Your task to perform on an android device: allow cookies in the chrome app Image 0: 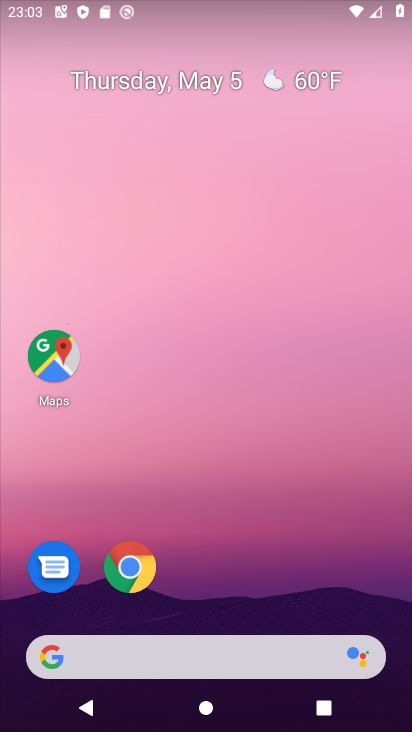
Step 0: click (133, 572)
Your task to perform on an android device: allow cookies in the chrome app Image 1: 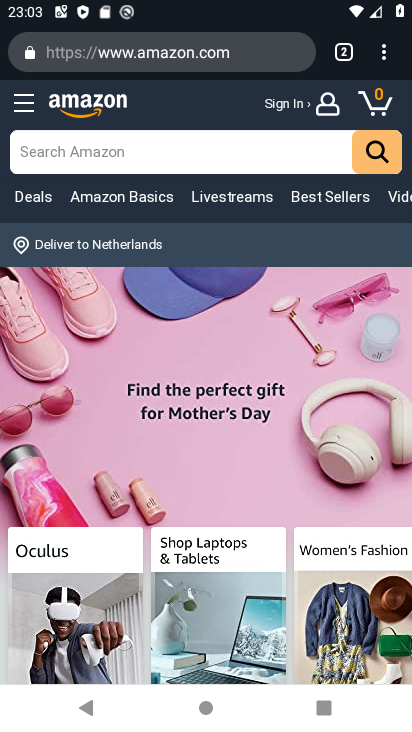
Step 1: click (381, 55)
Your task to perform on an android device: allow cookies in the chrome app Image 2: 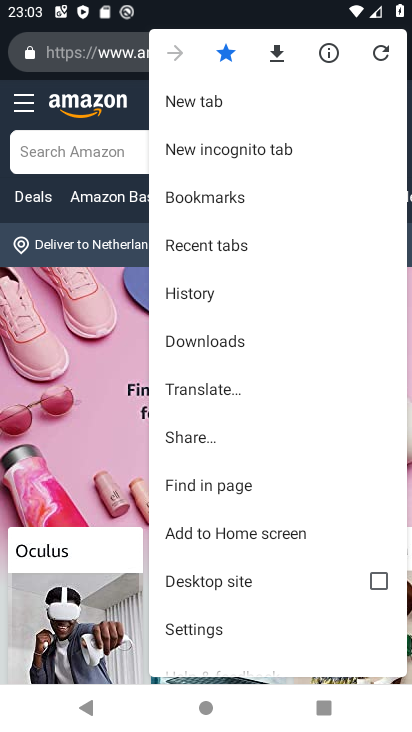
Step 2: click (200, 625)
Your task to perform on an android device: allow cookies in the chrome app Image 3: 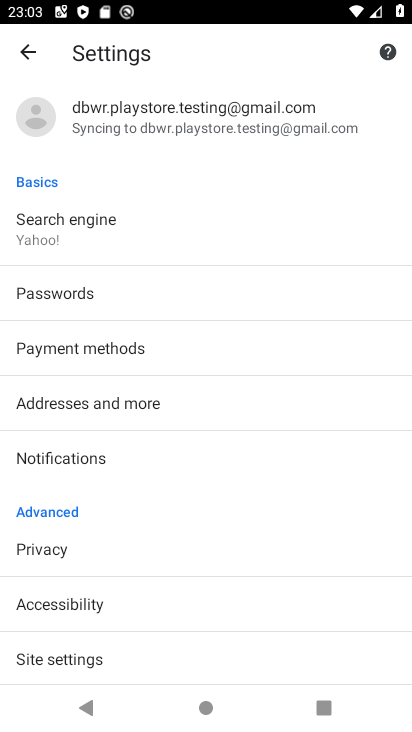
Step 3: drag from (157, 644) to (142, 415)
Your task to perform on an android device: allow cookies in the chrome app Image 4: 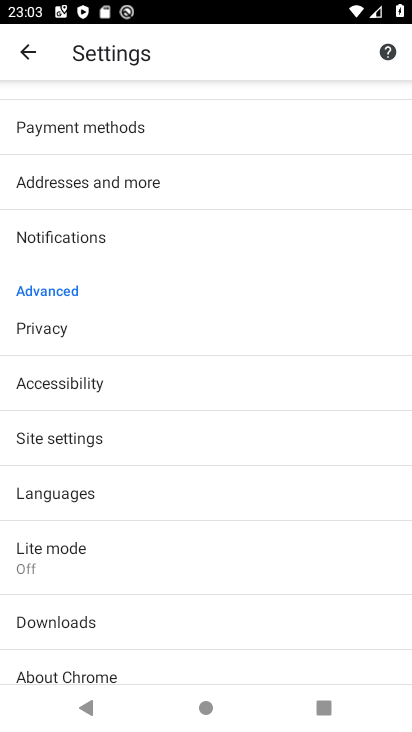
Step 4: click (95, 589)
Your task to perform on an android device: allow cookies in the chrome app Image 5: 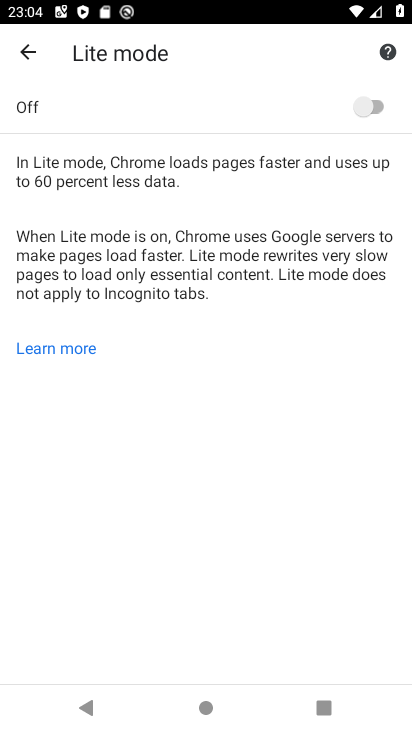
Step 5: click (18, 52)
Your task to perform on an android device: allow cookies in the chrome app Image 6: 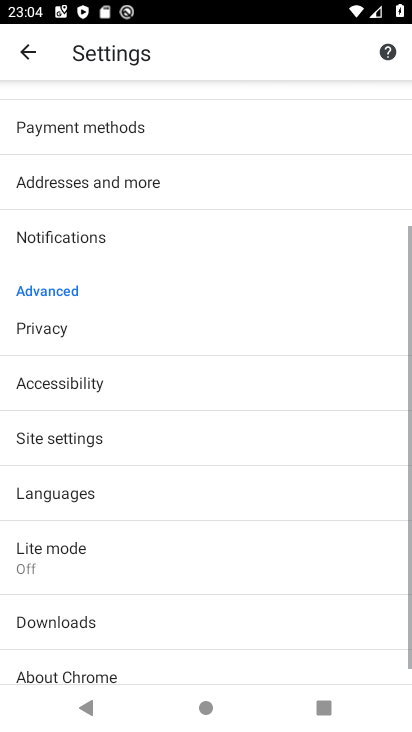
Step 6: click (100, 440)
Your task to perform on an android device: allow cookies in the chrome app Image 7: 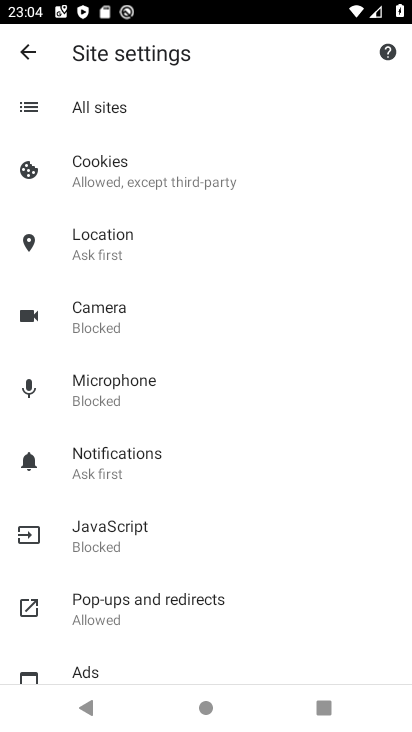
Step 7: click (133, 175)
Your task to perform on an android device: allow cookies in the chrome app Image 8: 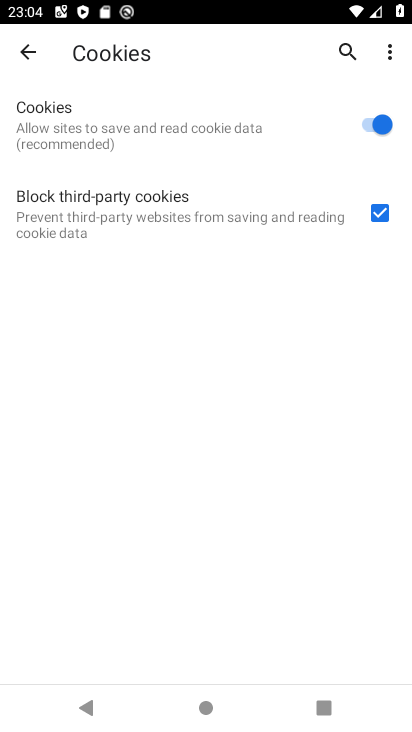
Step 8: task complete